Your task to perform on an android device: turn off data saver in the chrome app Image 0: 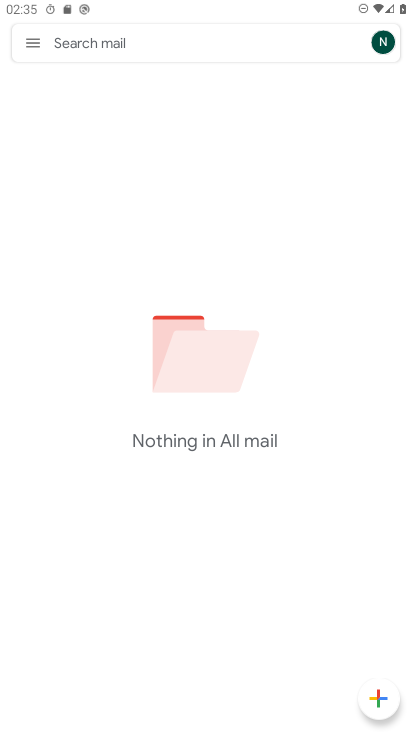
Step 0: press home button
Your task to perform on an android device: turn off data saver in the chrome app Image 1: 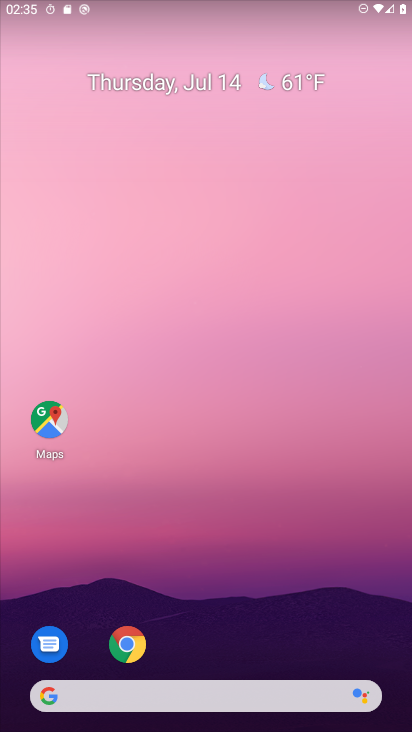
Step 1: drag from (280, 636) to (229, 74)
Your task to perform on an android device: turn off data saver in the chrome app Image 2: 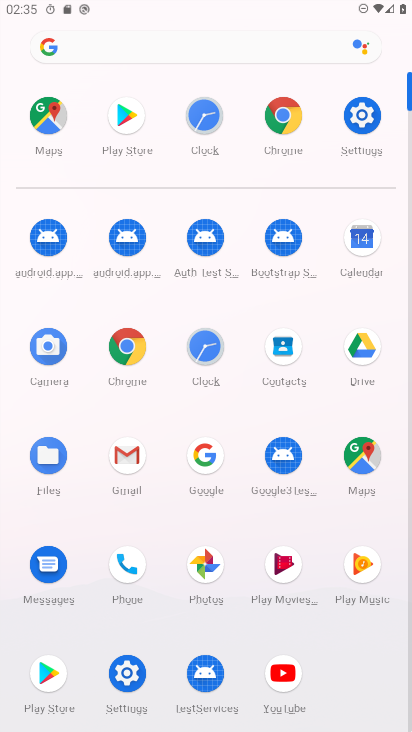
Step 2: click (127, 344)
Your task to perform on an android device: turn off data saver in the chrome app Image 3: 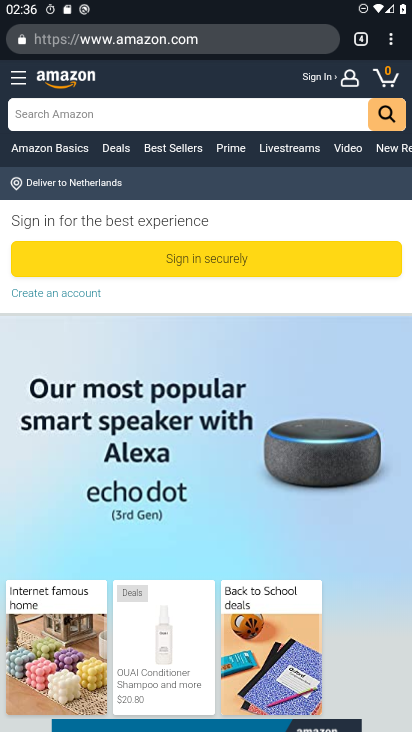
Step 3: drag from (387, 41) to (263, 469)
Your task to perform on an android device: turn off data saver in the chrome app Image 4: 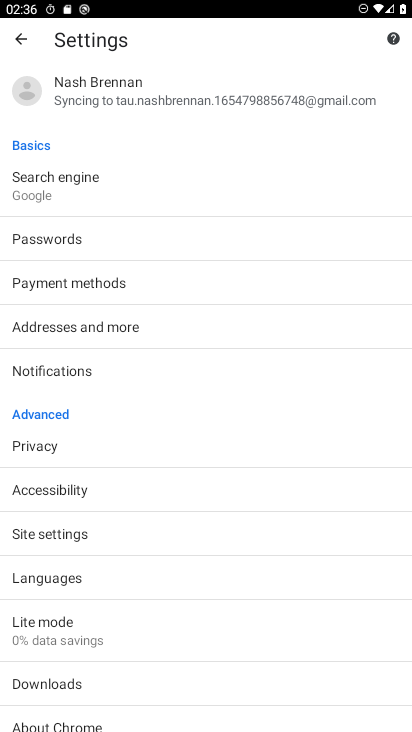
Step 4: drag from (220, 674) to (250, 210)
Your task to perform on an android device: turn off data saver in the chrome app Image 5: 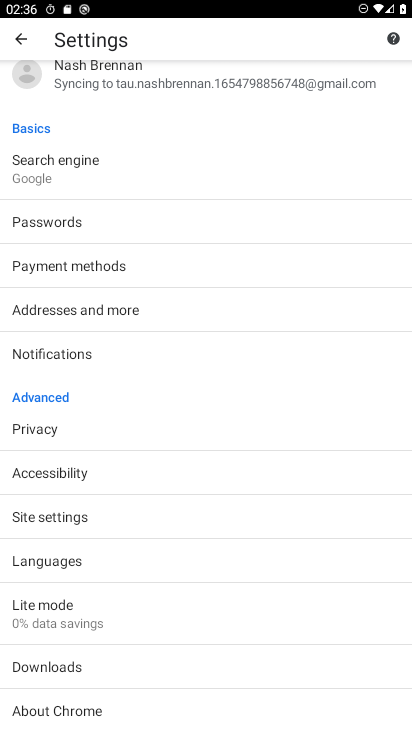
Step 5: click (70, 614)
Your task to perform on an android device: turn off data saver in the chrome app Image 6: 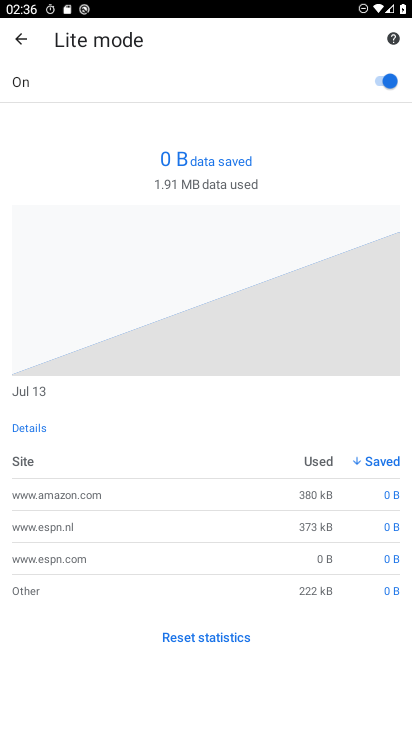
Step 6: click (380, 78)
Your task to perform on an android device: turn off data saver in the chrome app Image 7: 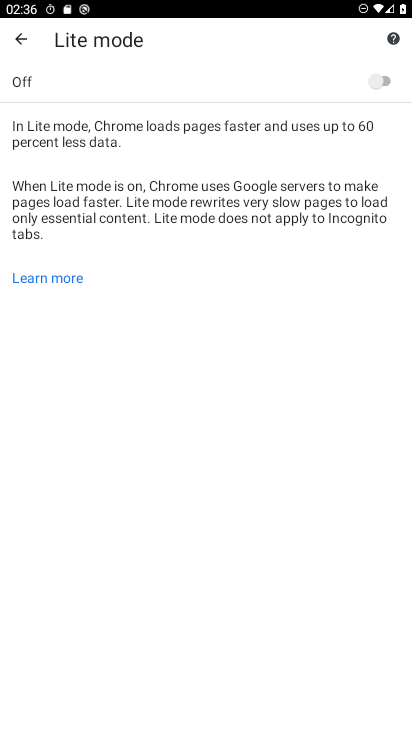
Step 7: task complete